Your task to perform on an android device: add a contact Image 0: 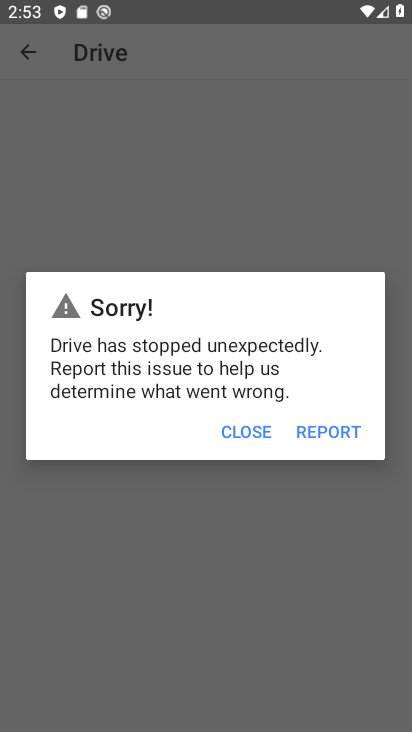
Step 0: press home button
Your task to perform on an android device: add a contact Image 1: 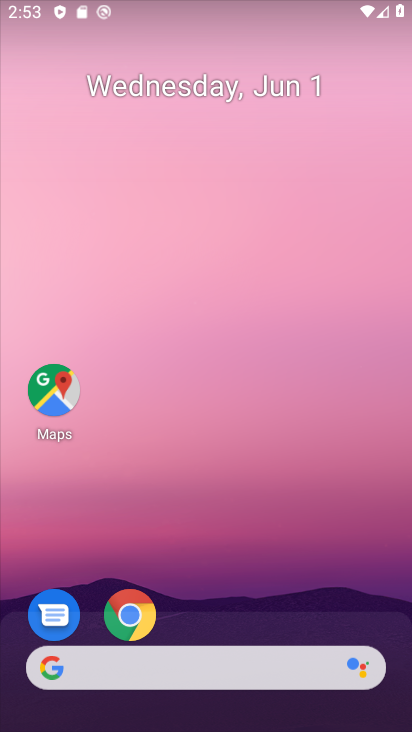
Step 1: drag from (295, 623) to (250, 3)
Your task to perform on an android device: add a contact Image 2: 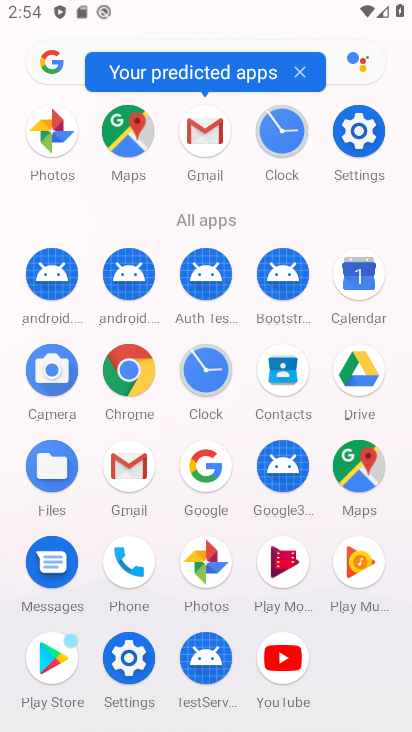
Step 2: click (293, 379)
Your task to perform on an android device: add a contact Image 3: 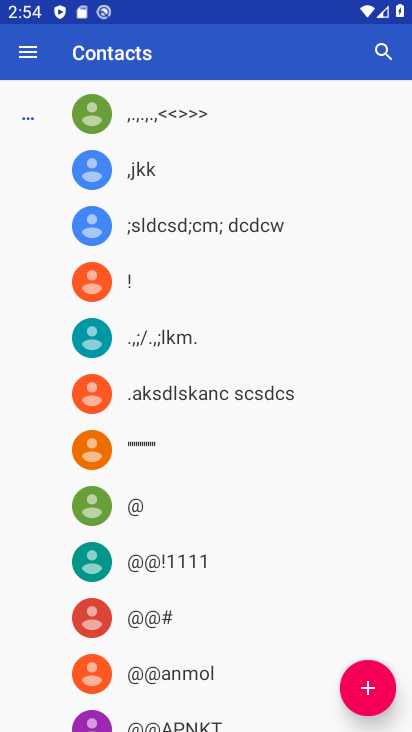
Step 3: click (373, 683)
Your task to perform on an android device: add a contact Image 4: 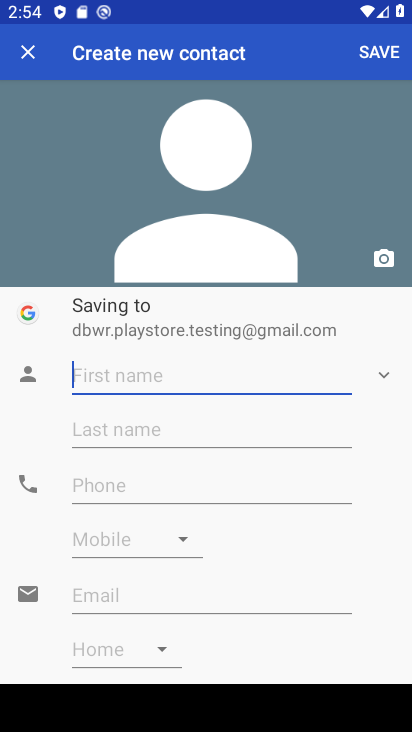
Step 4: type "sfsdsdf"
Your task to perform on an android device: add a contact Image 5: 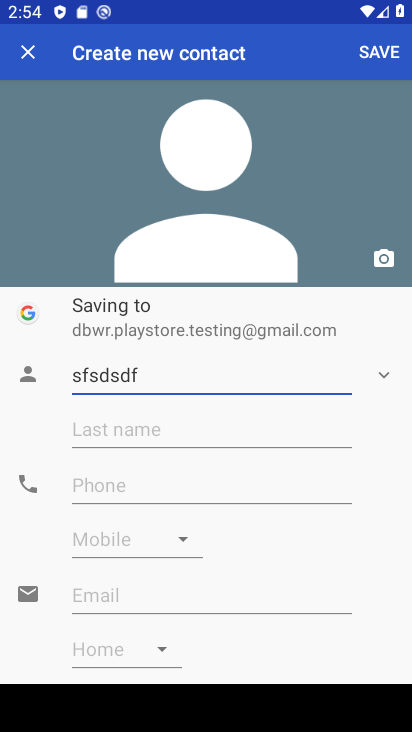
Step 5: click (139, 480)
Your task to perform on an android device: add a contact Image 6: 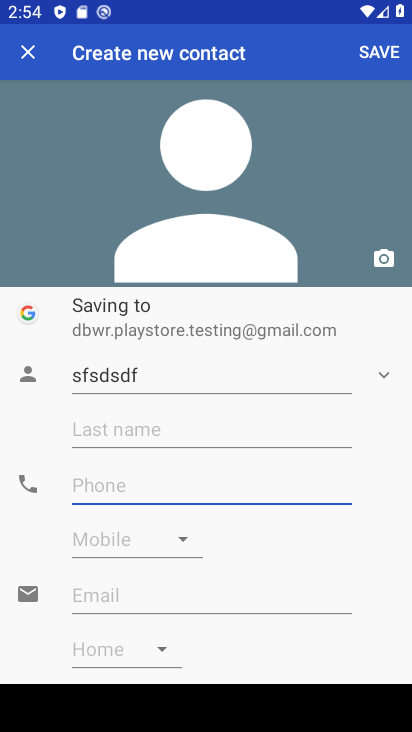
Step 6: type "9798798684"
Your task to perform on an android device: add a contact Image 7: 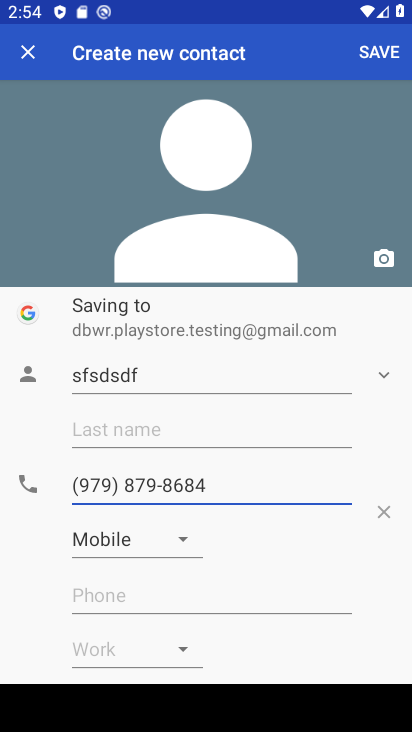
Step 7: click (375, 55)
Your task to perform on an android device: add a contact Image 8: 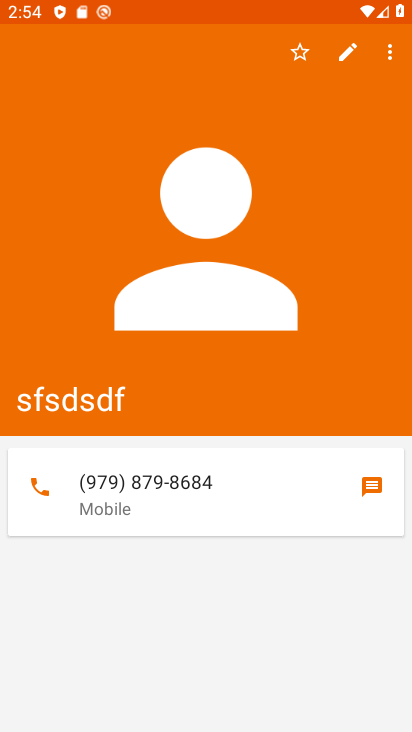
Step 8: task complete